Your task to perform on an android device: Open Google Maps and go to "Timeline" Image 0: 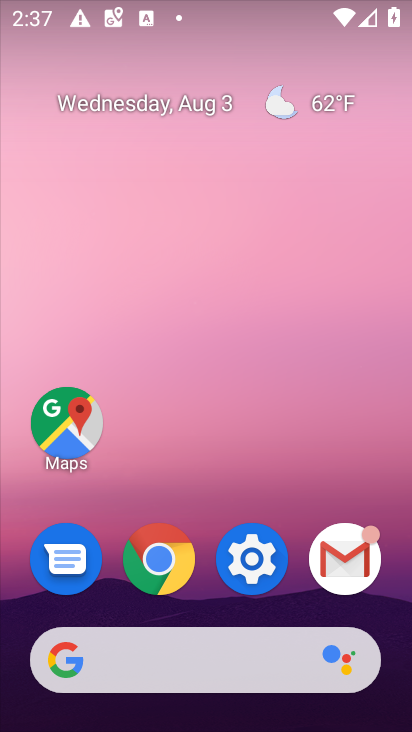
Step 0: click (67, 406)
Your task to perform on an android device: Open Google Maps and go to "Timeline" Image 1: 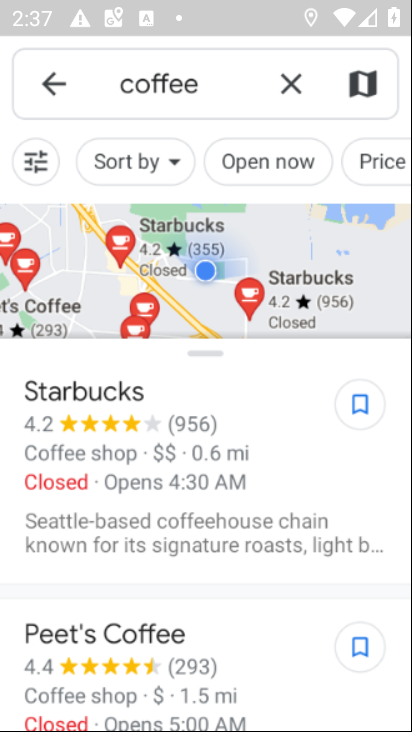
Step 1: click (48, 77)
Your task to perform on an android device: Open Google Maps and go to "Timeline" Image 2: 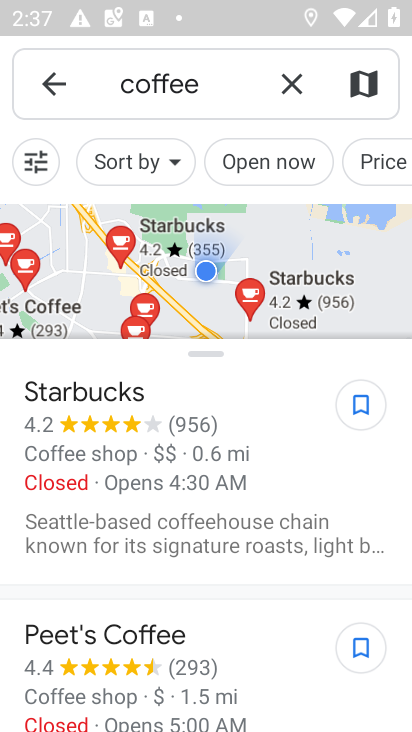
Step 2: click (47, 75)
Your task to perform on an android device: Open Google Maps and go to "Timeline" Image 3: 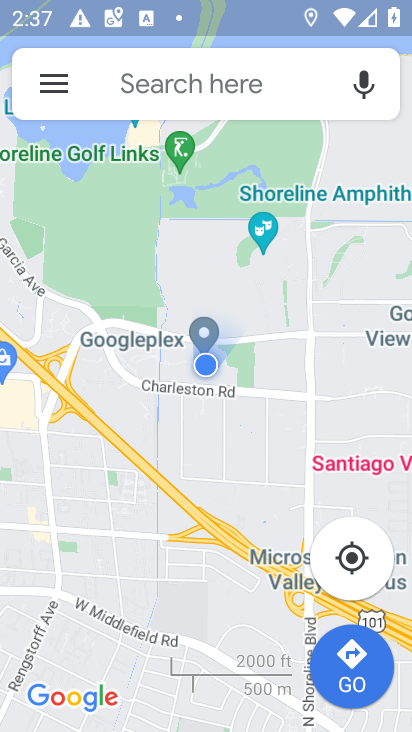
Step 3: click (55, 85)
Your task to perform on an android device: Open Google Maps and go to "Timeline" Image 4: 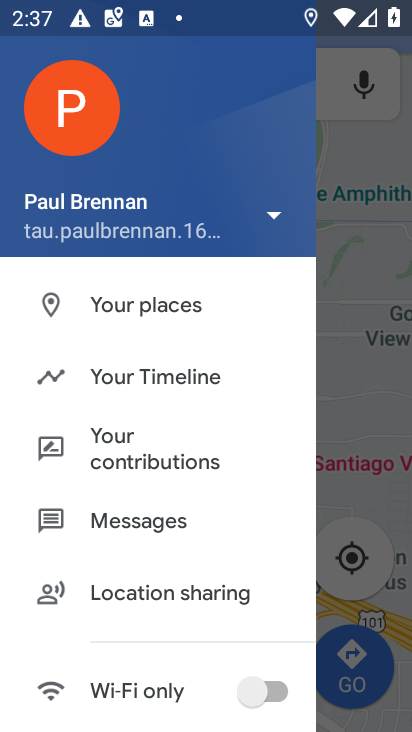
Step 4: click (173, 369)
Your task to perform on an android device: Open Google Maps and go to "Timeline" Image 5: 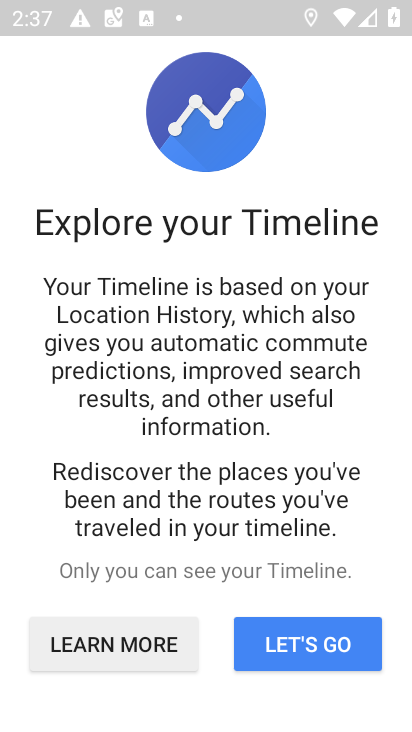
Step 5: click (283, 626)
Your task to perform on an android device: Open Google Maps and go to "Timeline" Image 6: 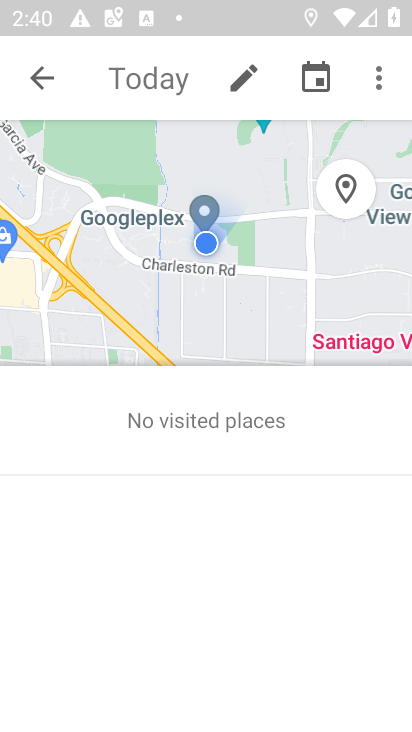
Step 6: task complete